Your task to perform on an android device: What's the weather going to be this weekend? Image 0: 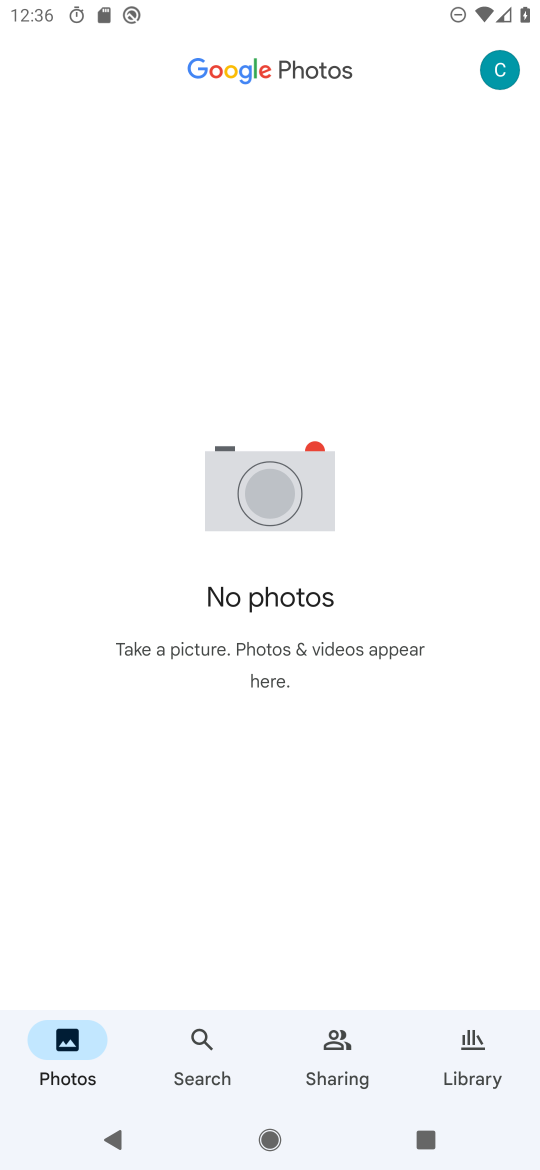
Step 0: press home button
Your task to perform on an android device: What's the weather going to be this weekend? Image 1: 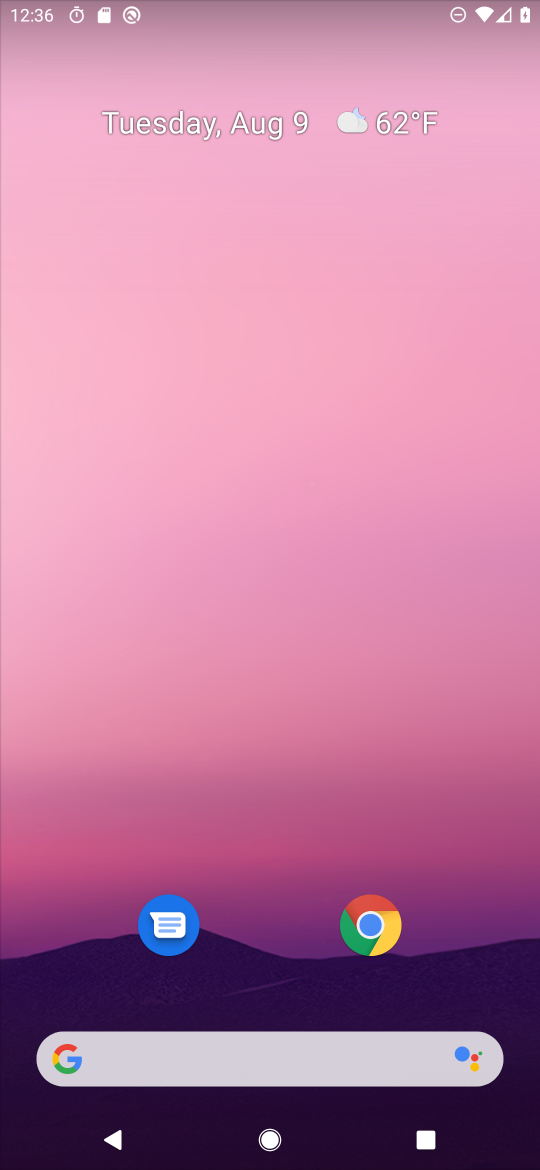
Step 1: drag from (222, 860) to (415, 224)
Your task to perform on an android device: What's the weather going to be this weekend? Image 2: 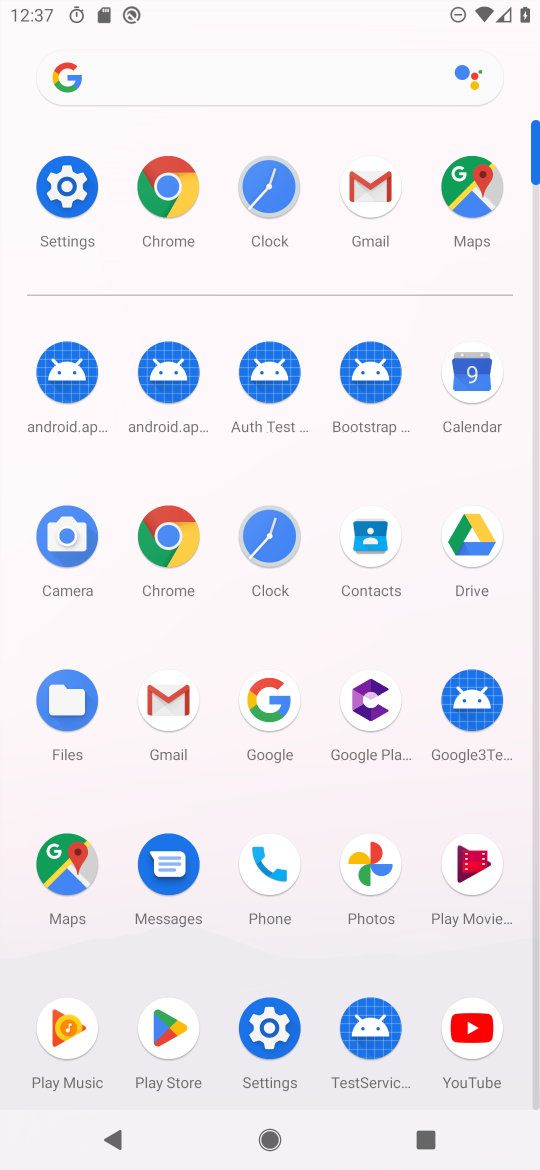
Step 2: press home button
Your task to perform on an android device: What's the weather going to be this weekend? Image 3: 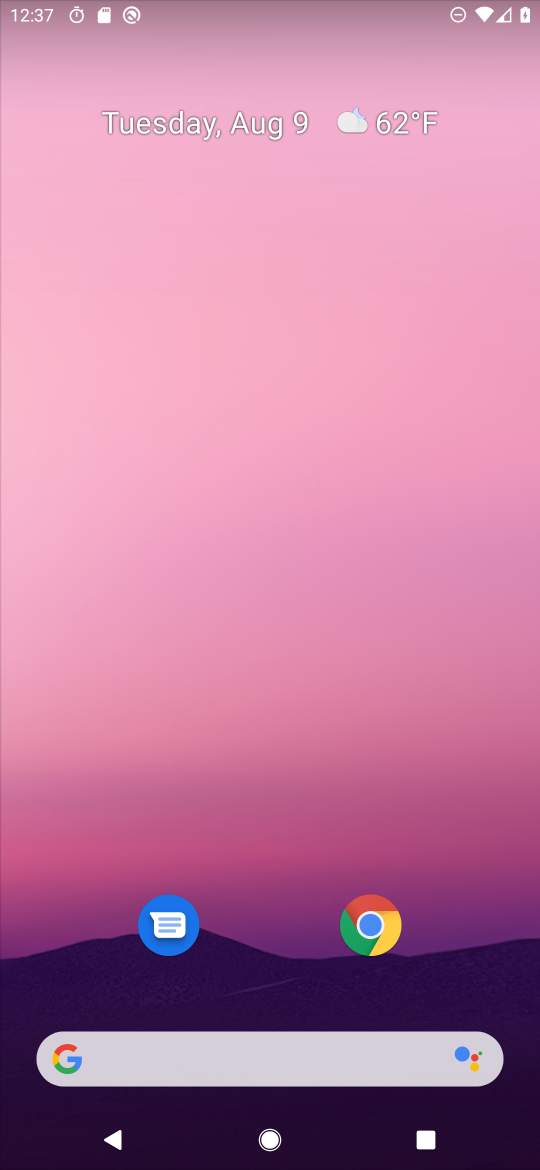
Step 3: click (382, 117)
Your task to perform on an android device: What's the weather going to be this weekend? Image 4: 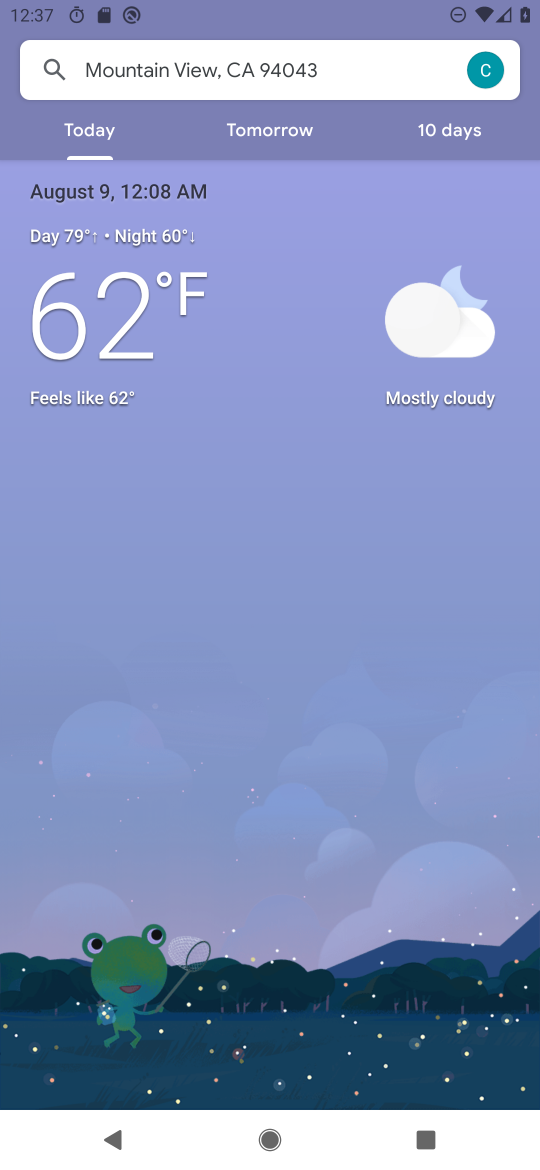
Step 4: click (463, 133)
Your task to perform on an android device: What's the weather going to be this weekend? Image 5: 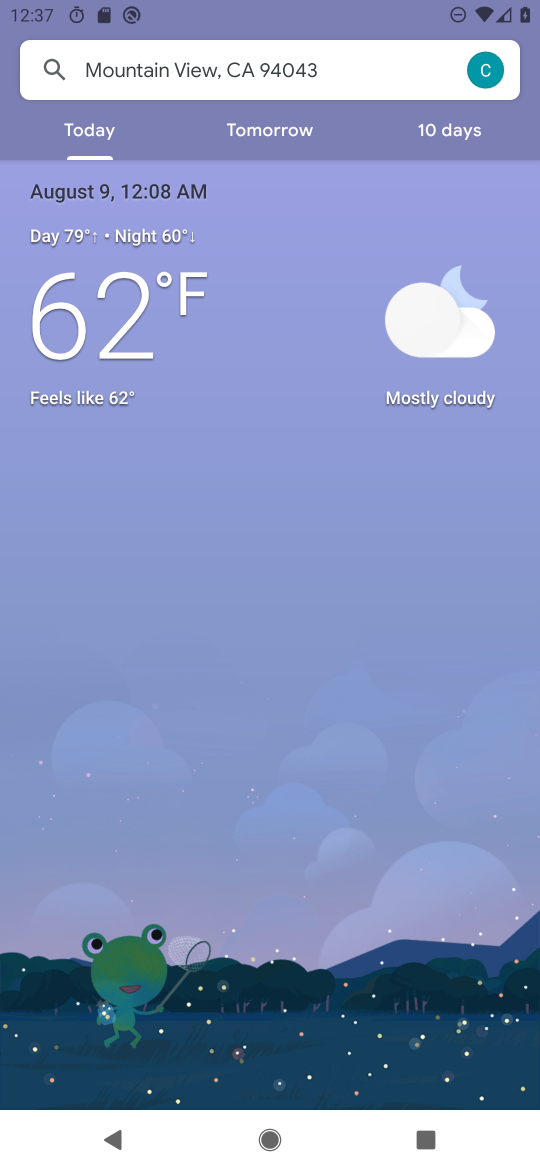
Step 5: click (451, 147)
Your task to perform on an android device: What's the weather going to be this weekend? Image 6: 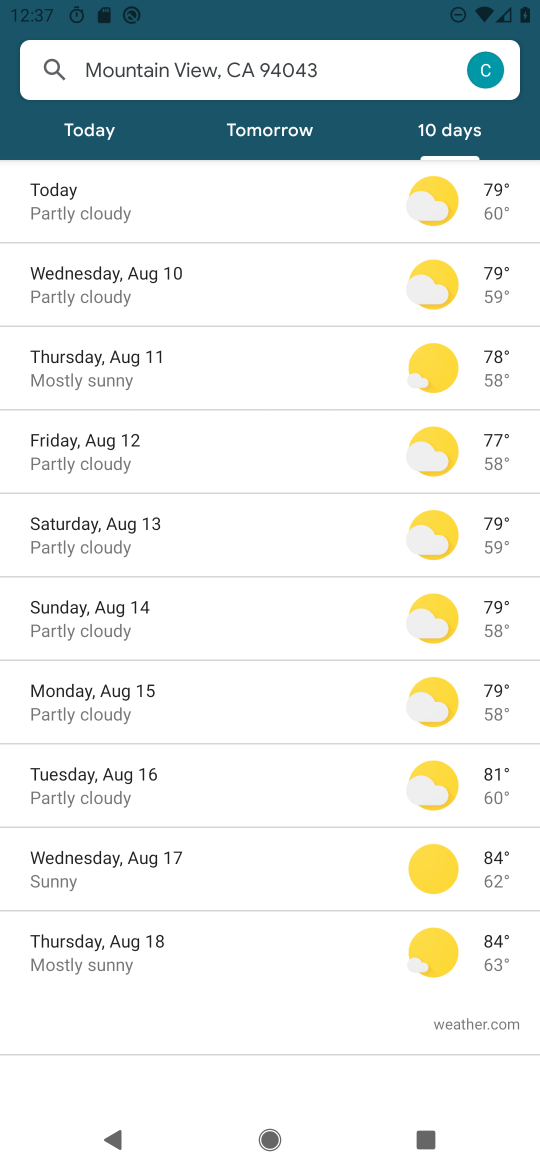
Step 6: click (93, 538)
Your task to perform on an android device: What's the weather going to be this weekend? Image 7: 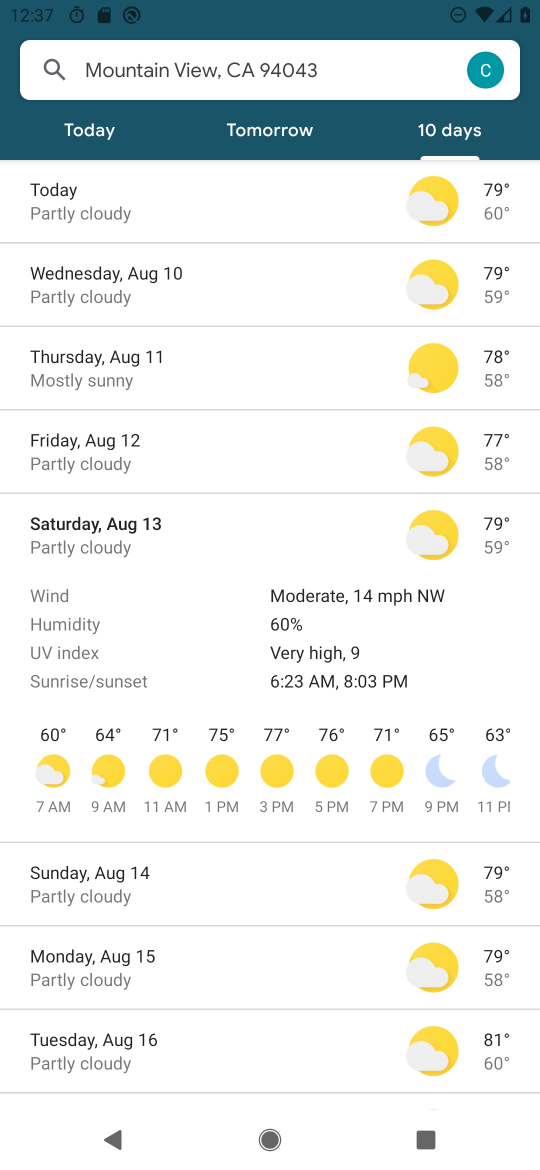
Step 7: task complete